Your task to perform on an android device: Search for sushi restaurants on Maps Image 0: 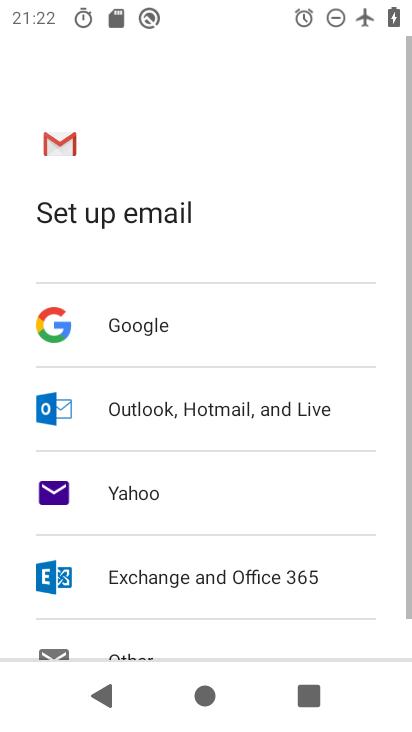
Step 0: press home button
Your task to perform on an android device: Search for sushi restaurants on Maps Image 1: 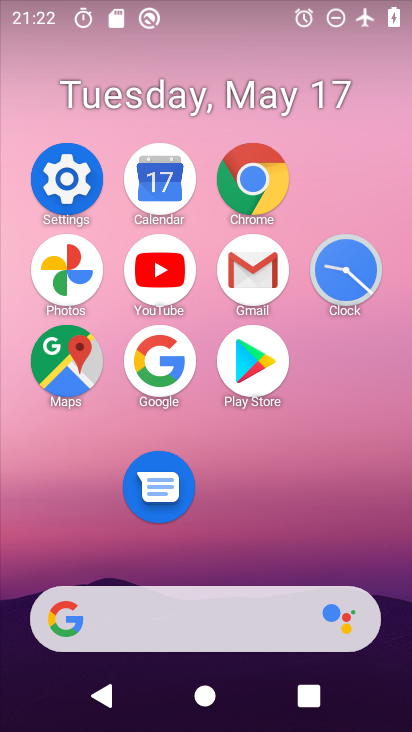
Step 1: click (77, 361)
Your task to perform on an android device: Search for sushi restaurants on Maps Image 2: 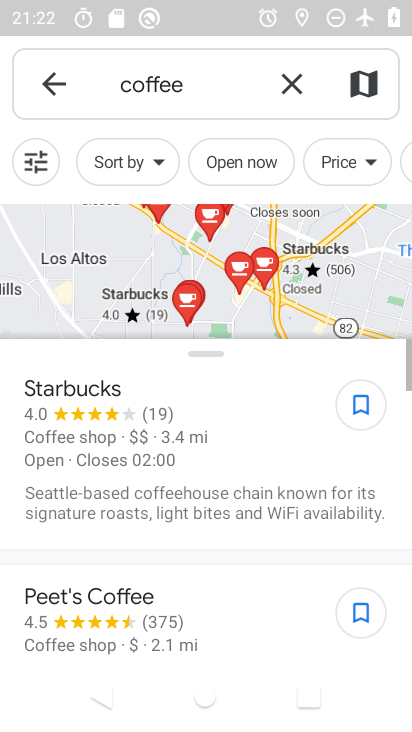
Step 2: click (299, 90)
Your task to perform on an android device: Search for sushi restaurants on Maps Image 3: 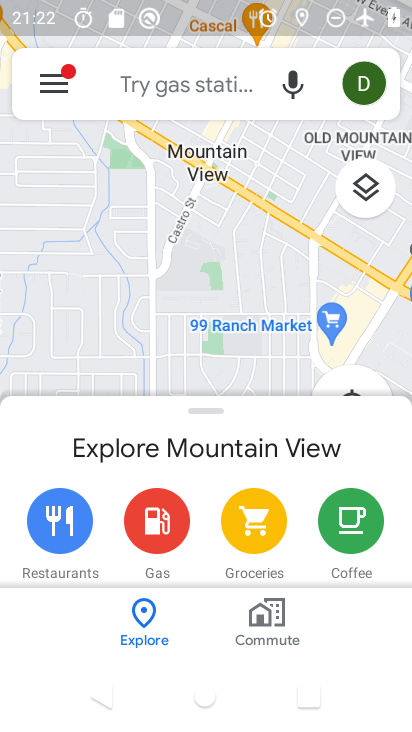
Step 3: click (149, 89)
Your task to perform on an android device: Search for sushi restaurants on Maps Image 4: 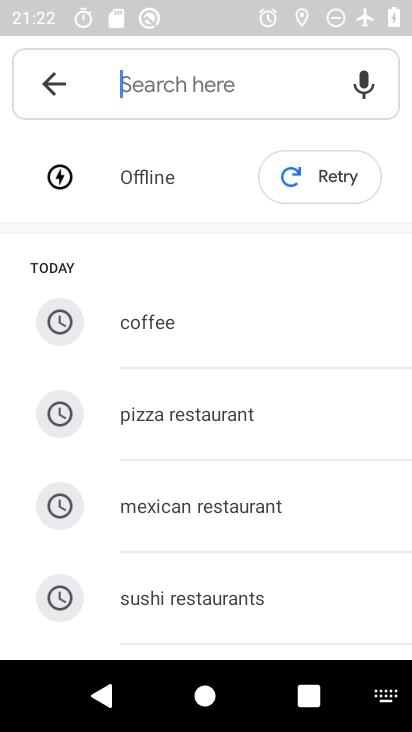
Step 4: click (223, 586)
Your task to perform on an android device: Search for sushi restaurants on Maps Image 5: 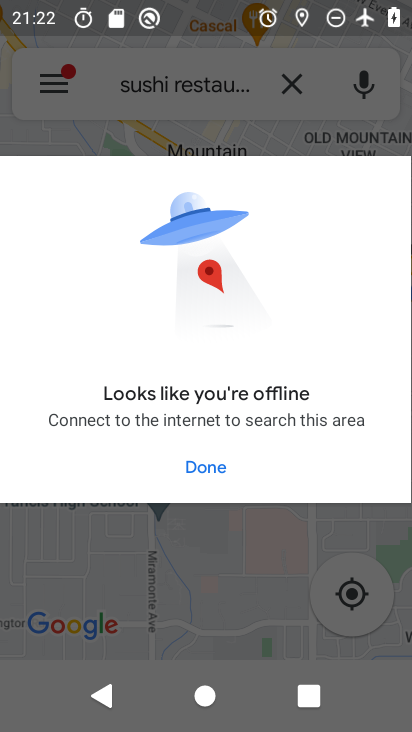
Step 5: click (250, 472)
Your task to perform on an android device: Search for sushi restaurants on Maps Image 6: 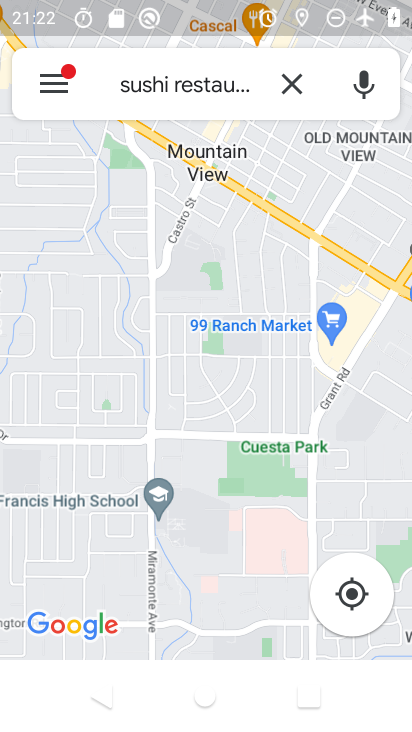
Step 6: task complete